Your task to perform on an android device: Add "apple airpods" to the cart on target.com Image 0: 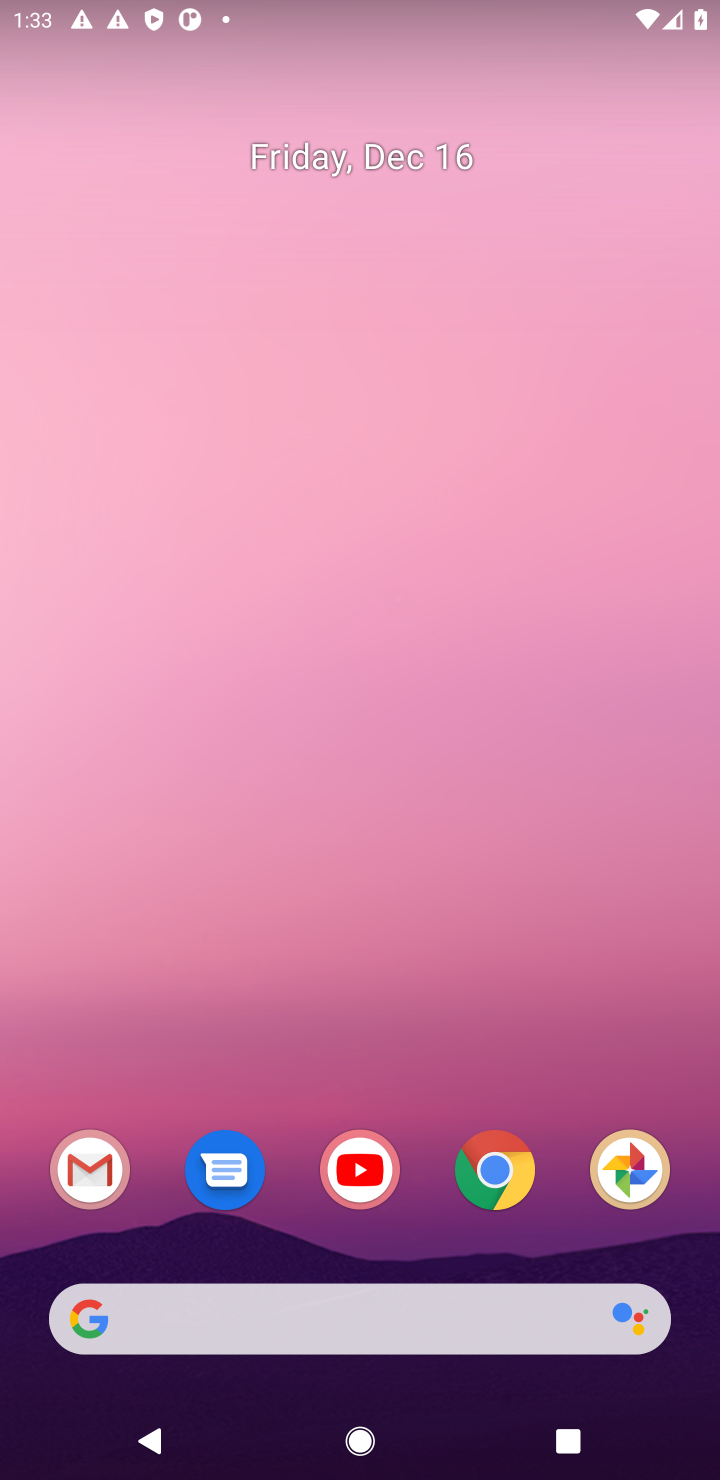
Step 0: click (507, 1184)
Your task to perform on an android device: Add "apple airpods" to the cart on target.com Image 1: 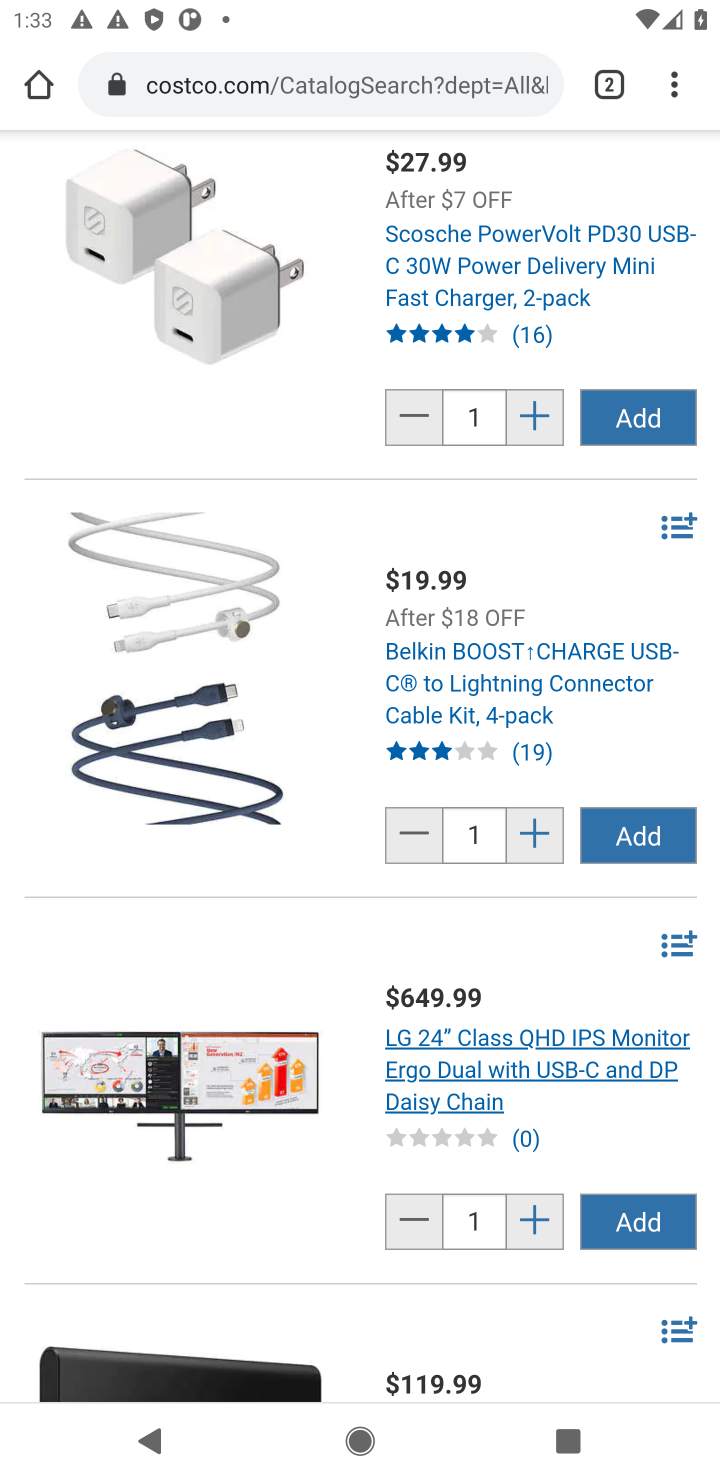
Step 1: click (248, 90)
Your task to perform on an android device: Add "apple airpods" to the cart on target.com Image 2: 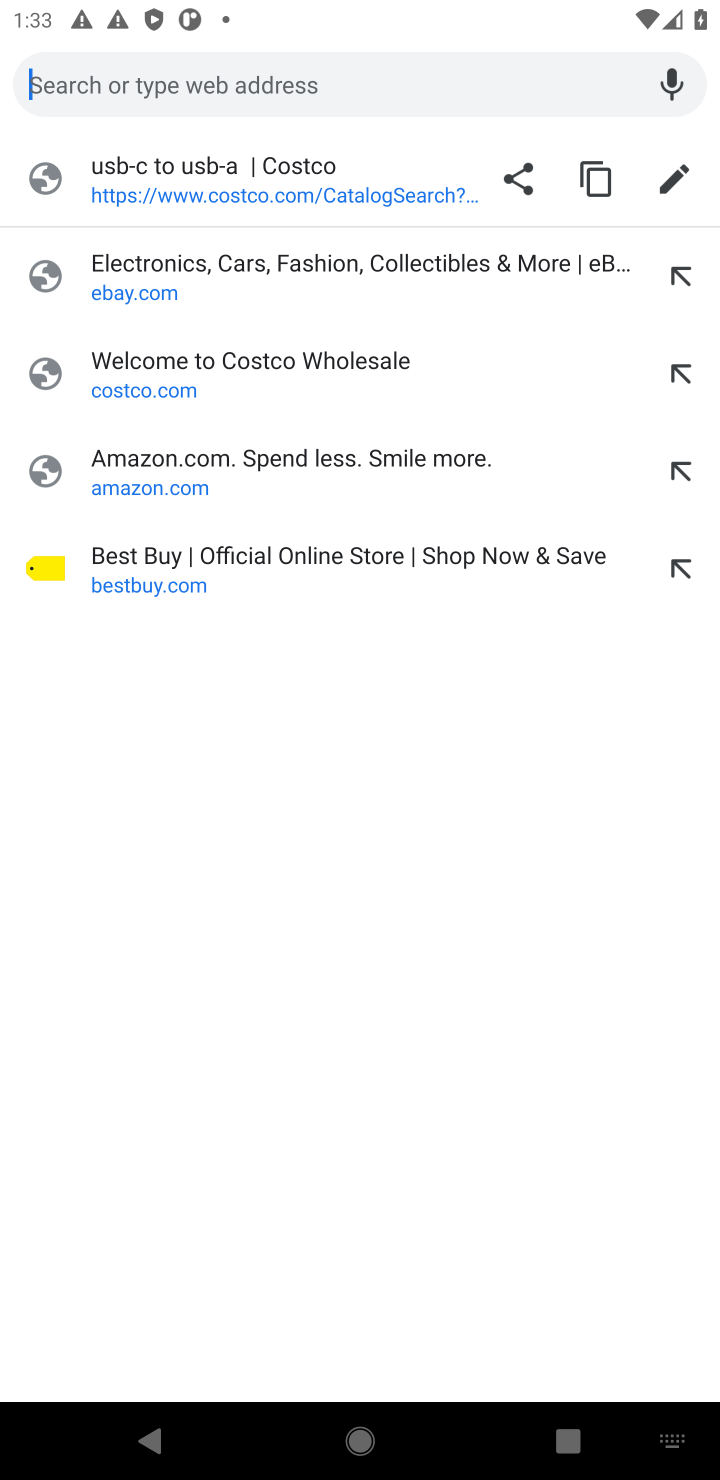
Step 2: type "target.com"
Your task to perform on an android device: Add "apple airpods" to the cart on target.com Image 3: 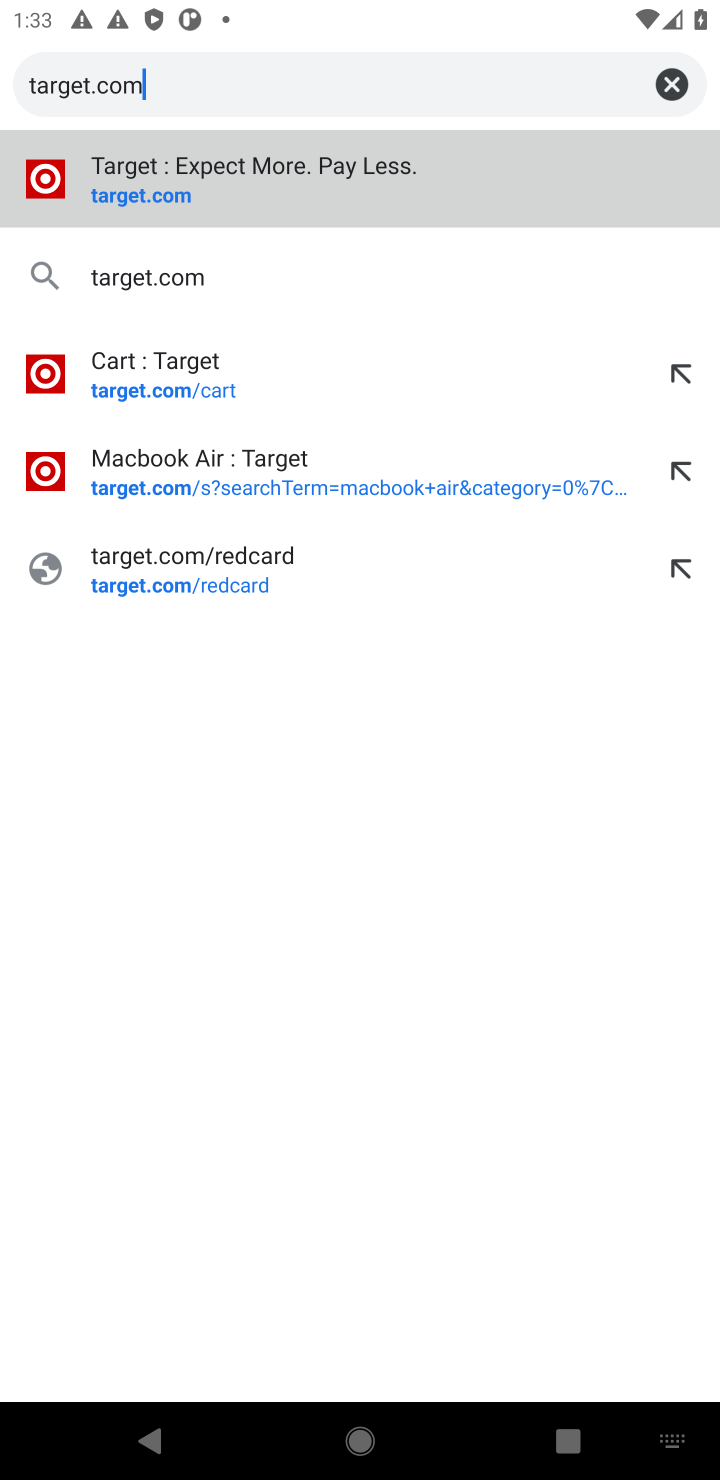
Step 3: click (137, 185)
Your task to perform on an android device: Add "apple airpods" to the cart on target.com Image 4: 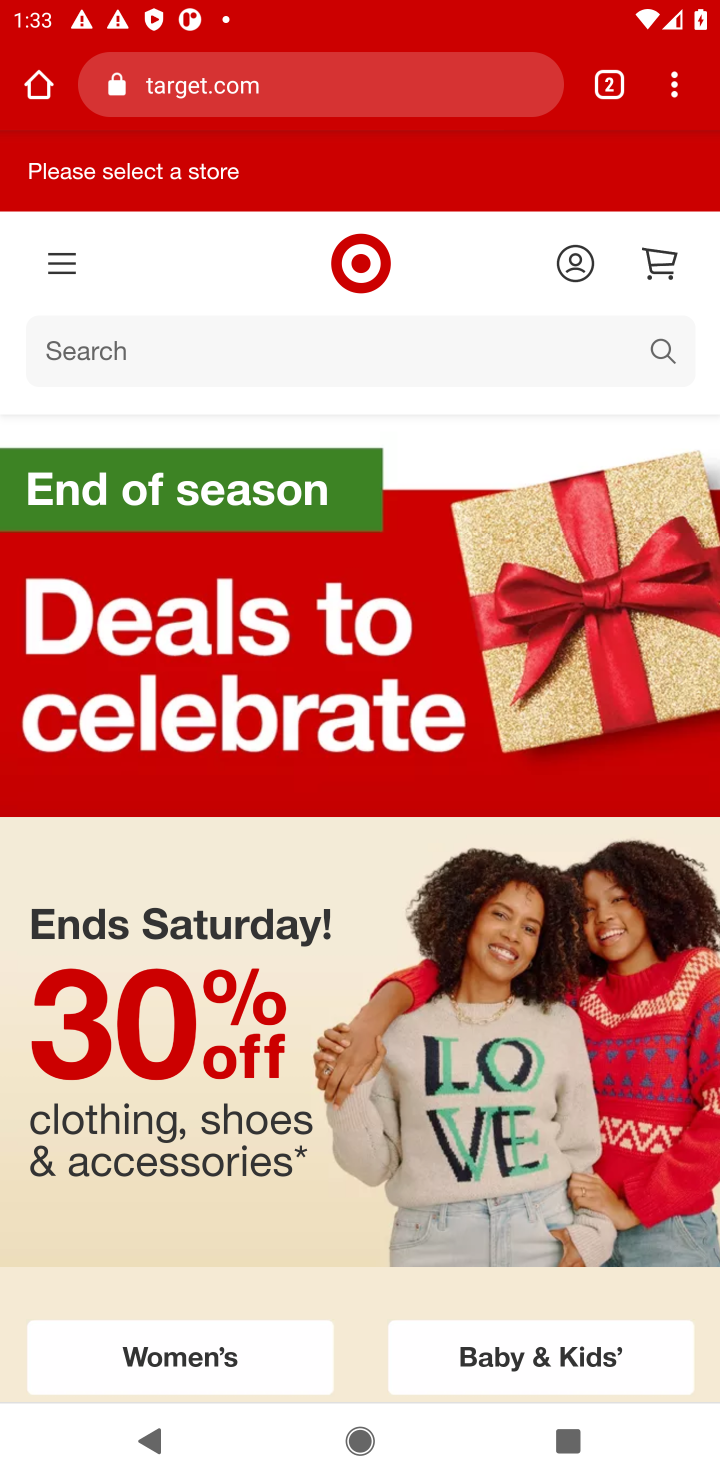
Step 4: click (50, 354)
Your task to perform on an android device: Add "apple airpods" to the cart on target.com Image 5: 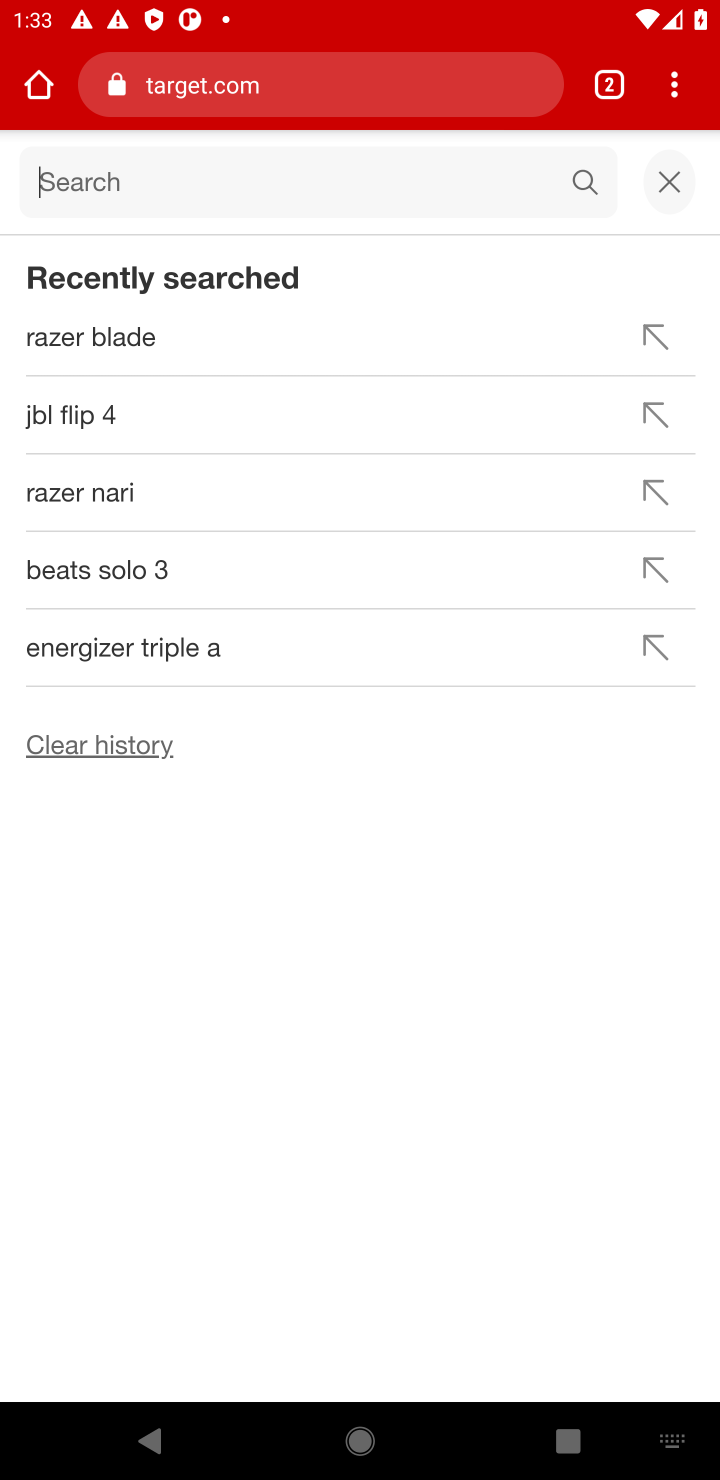
Step 5: type "apple airpods"
Your task to perform on an android device: Add "apple airpods" to the cart on target.com Image 6: 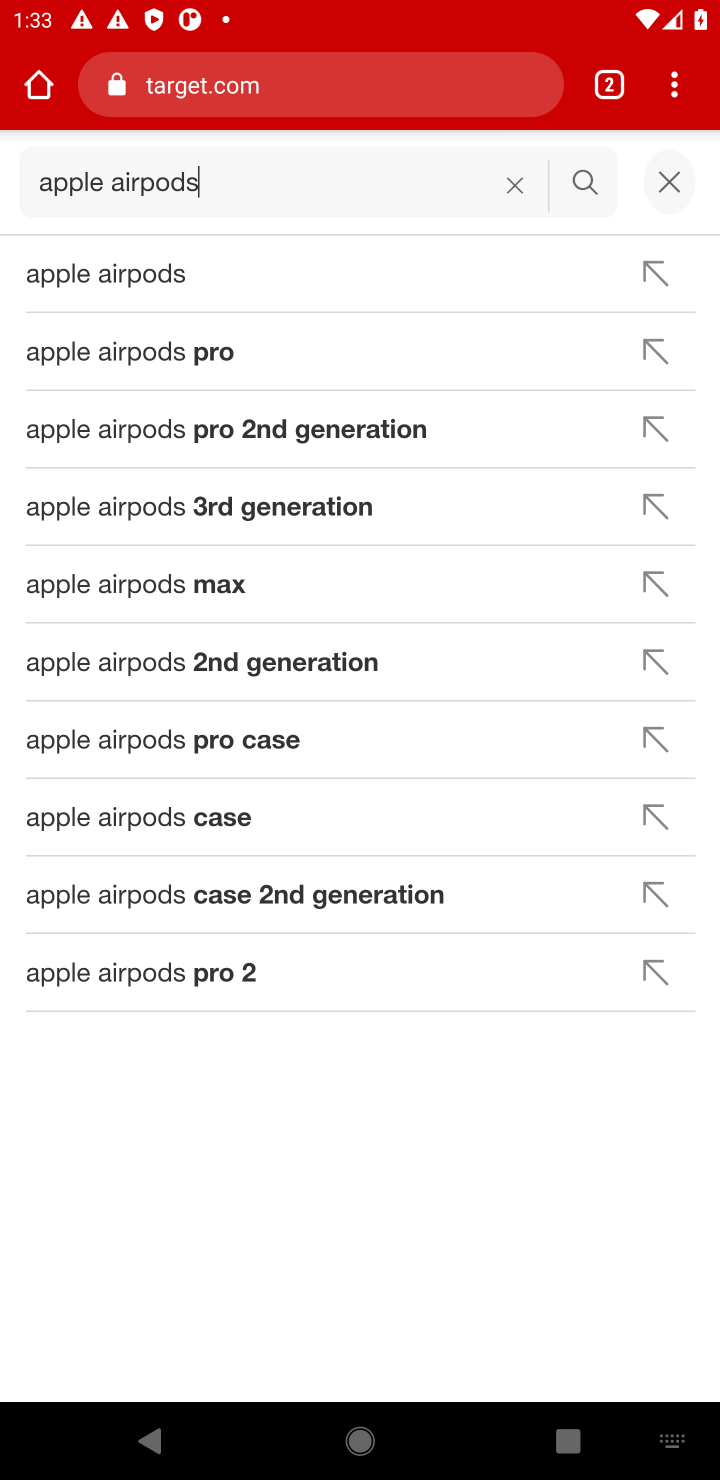
Step 6: click (107, 284)
Your task to perform on an android device: Add "apple airpods" to the cart on target.com Image 7: 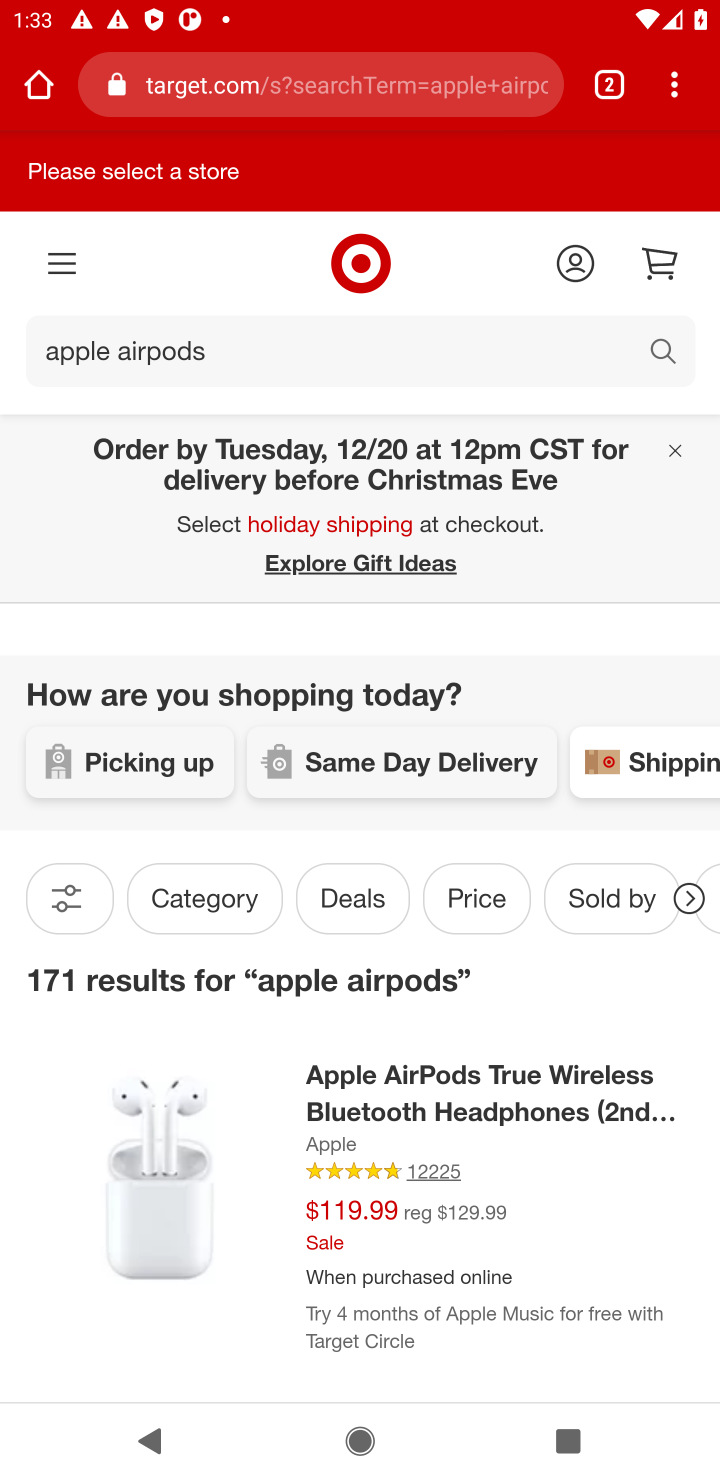
Step 7: drag from (309, 903) to (284, 494)
Your task to perform on an android device: Add "apple airpods" to the cart on target.com Image 8: 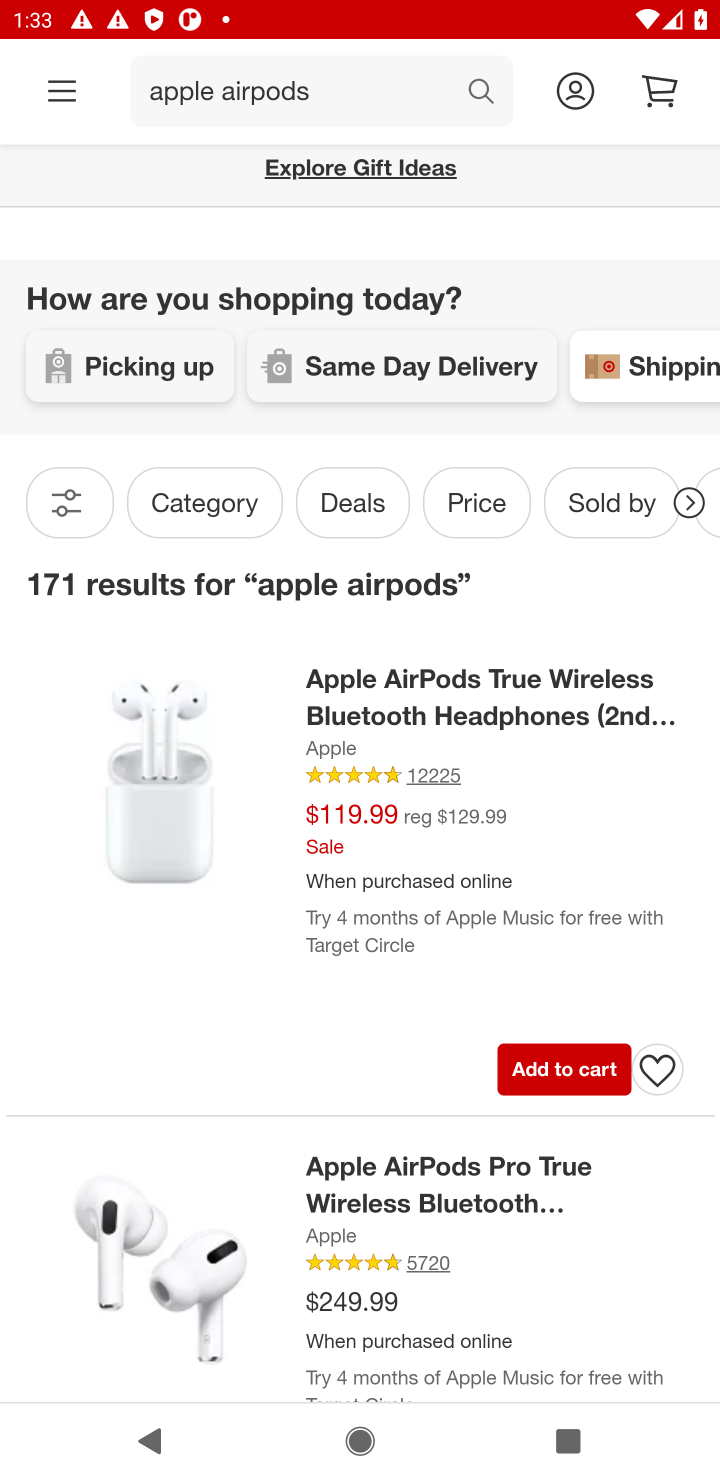
Step 8: click (564, 1071)
Your task to perform on an android device: Add "apple airpods" to the cart on target.com Image 9: 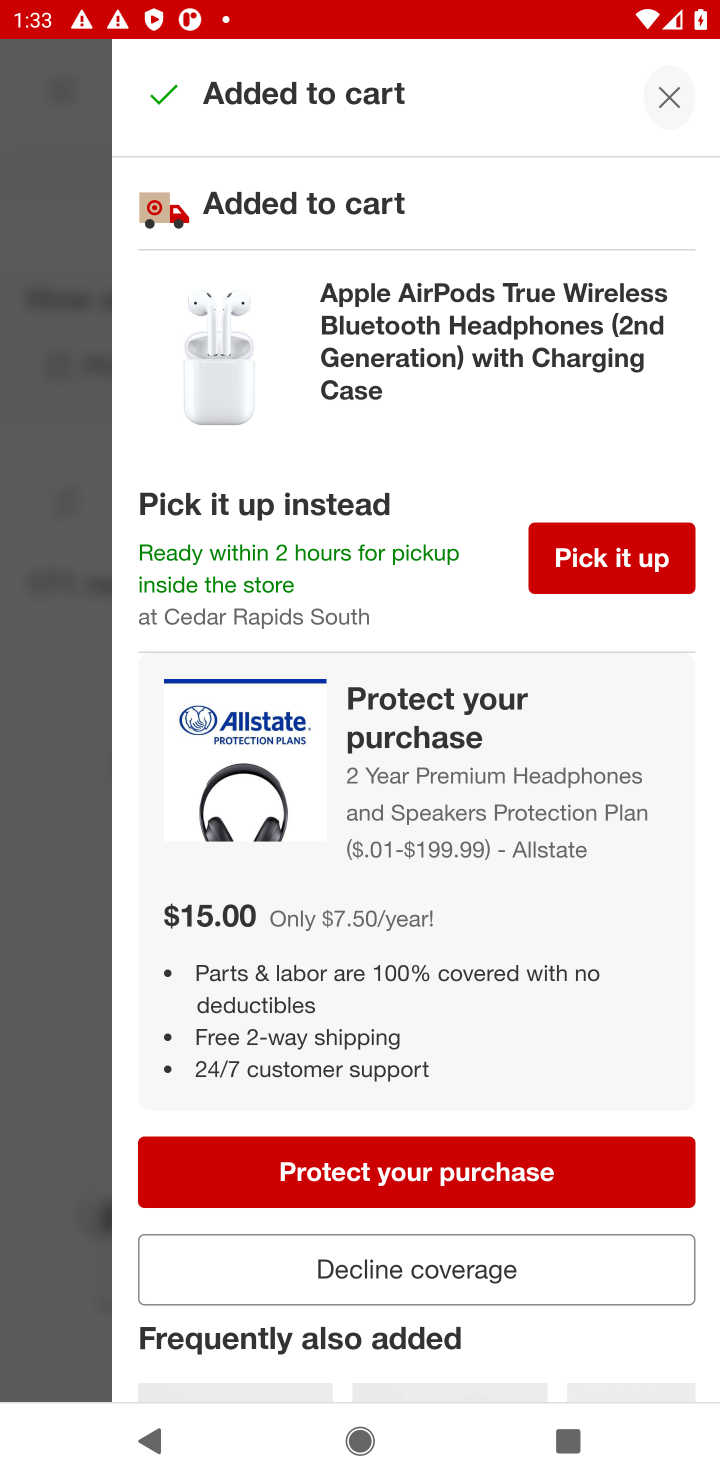
Step 9: task complete